Your task to perform on an android device: search for starred emails in the gmail app Image 0: 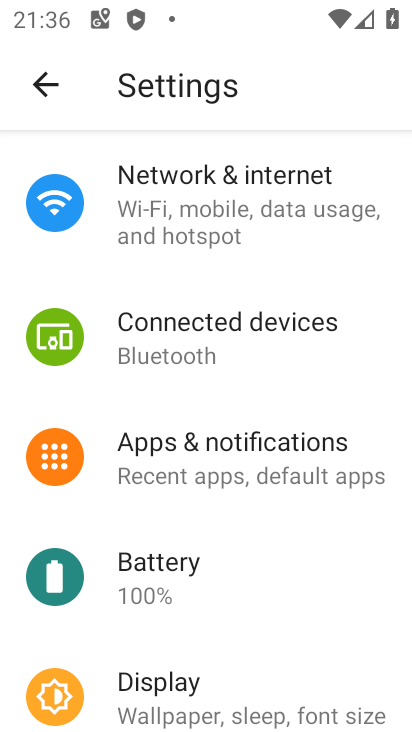
Step 0: press home button
Your task to perform on an android device: search for starred emails in the gmail app Image 1: 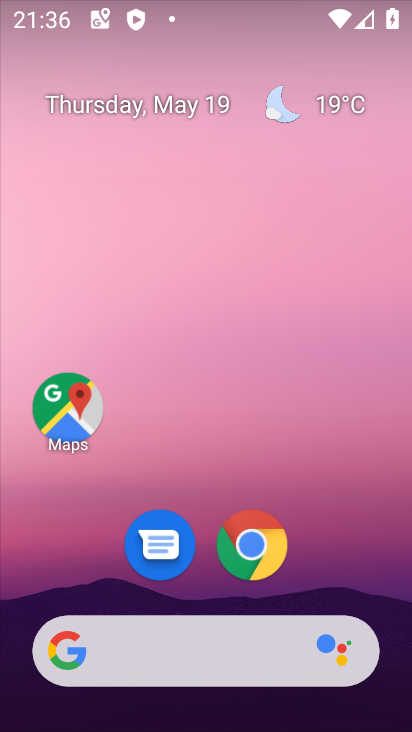
Step 1: drag from (398, 546) to (377, 133)
Your task to perform on an android device: search for starred emails in the gmail app Image 2: 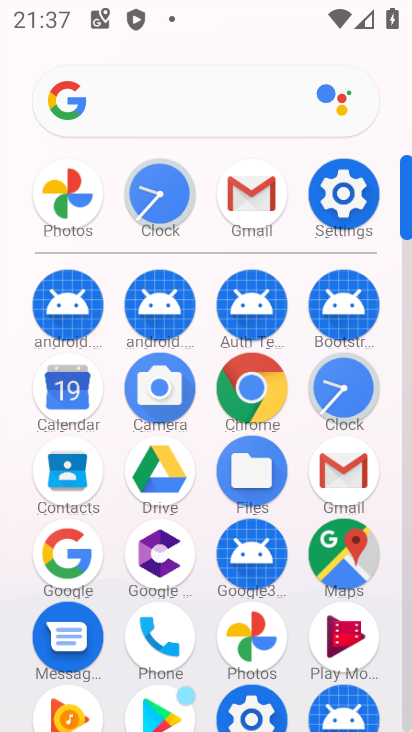
Step 2: click (258, 193)
Your task to perform on an android device: search for starred emails in the gmail app Image 3: 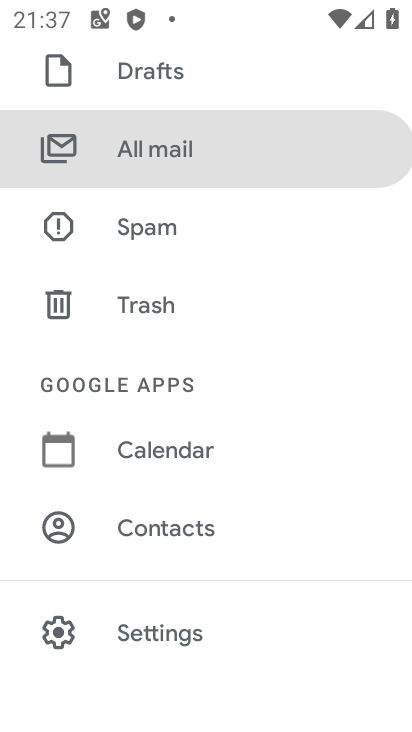
Step 3: drag from (164, 179) to (99, 642)
Your task to perform on an android device: search for starred emails in the gmail app Image 4: 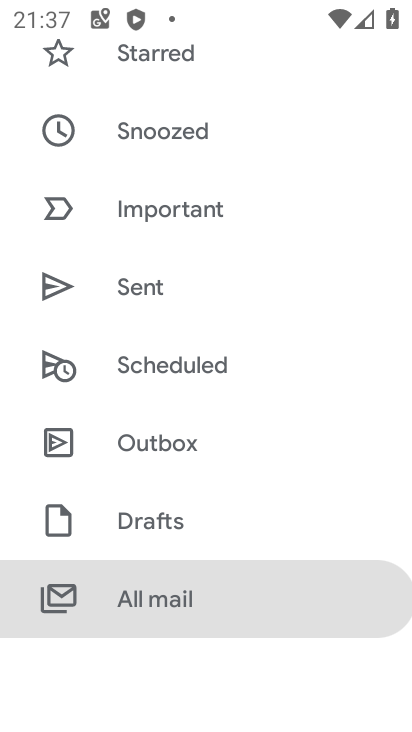
Step 4: click (220, 58)
Your task to perform on an android device: search for starred emails in the gmail app Image 5: 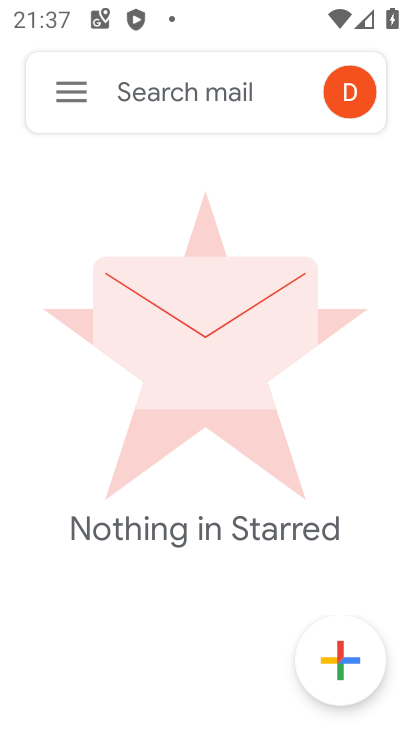
Step 5: task complete